Your task to perform on an android device: Open CNN.com Image 0: 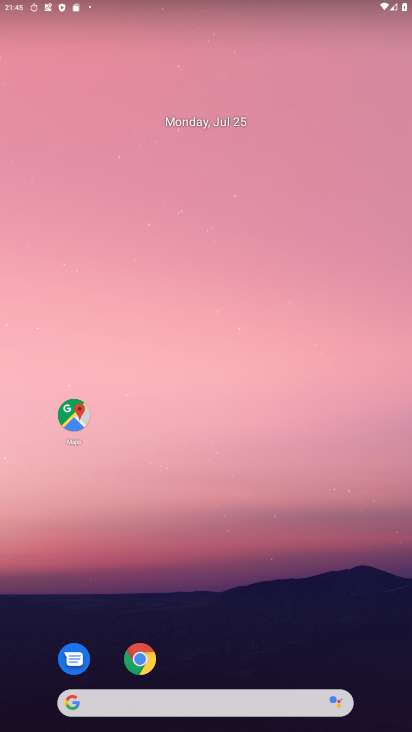
Step 0: click (159, 665)
Your task to perform on an android device: Open CNN.com Image 1: 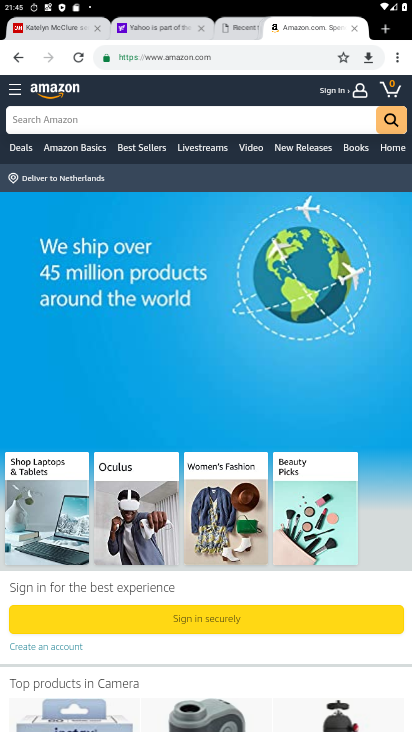
Step 1: click (386, 33)
Your task to perform on an android device: Open CNN.com Image 2: 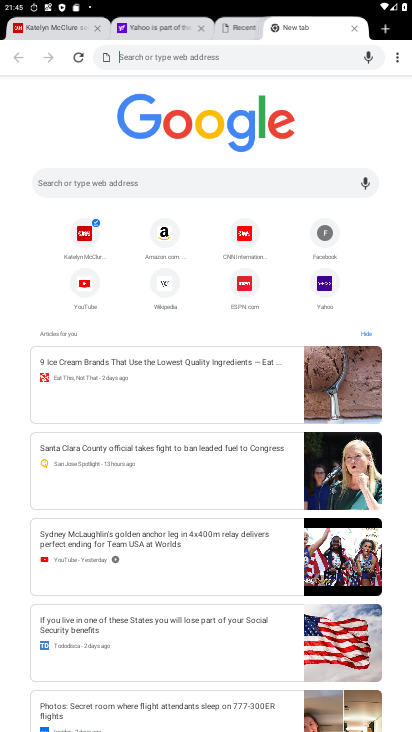
Step 2: click (192, 176)
Your task to perform on an android device: Open CNN.com Image 3: 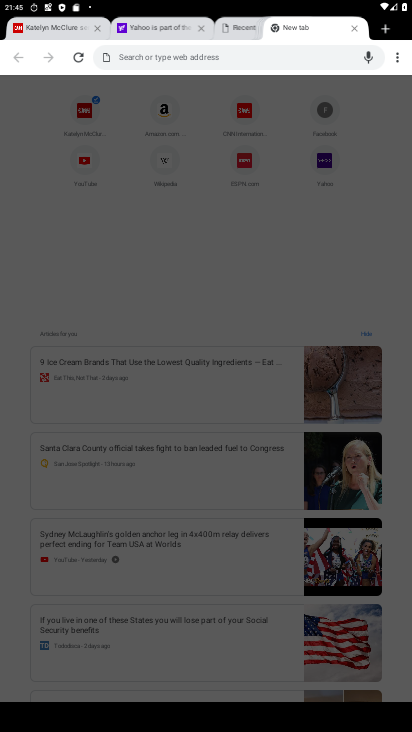
Step 3: type "CNN.com"
Your task to perform on an android device: Open CNN.com Image 4: 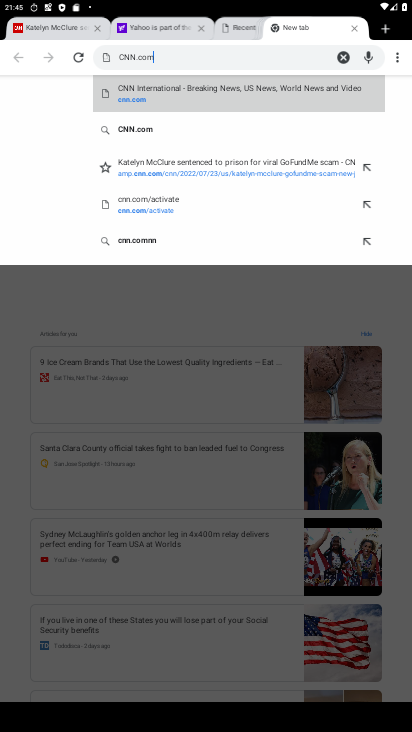
Step 4: type ""
Your task to perform on an android device: Open CNN.com Image 5: 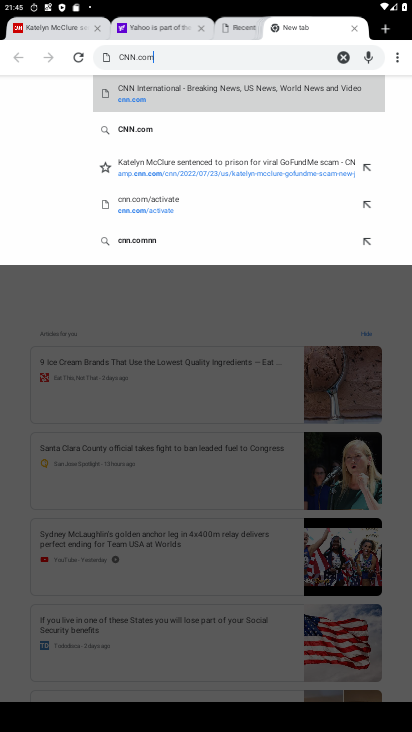
Step 5: click (211, 100)
Your task to perform on an android device: Open CNN.com Image 6: 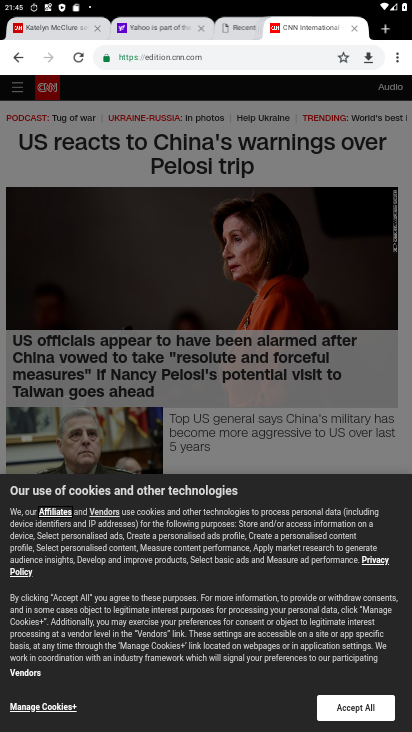
Step 6: task complete